Your task to perform on an android device: Search for a 1/4" hex shank drill bit on Lowe's. Image 0: 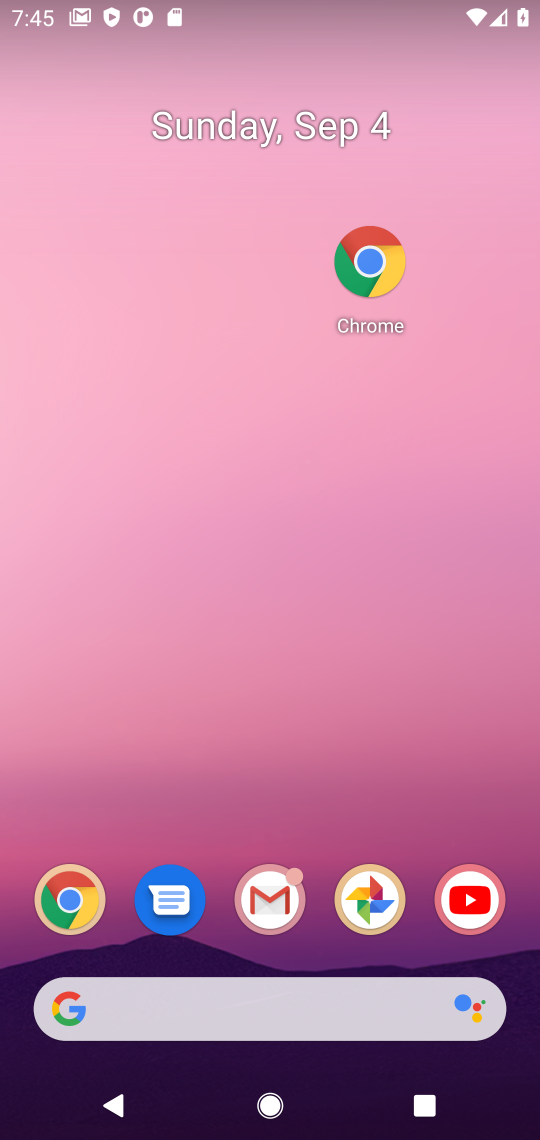
Step 0: click (385, 307)
Your task to perform on an android device: Search for a 1/4" hex shank drill bit on Lowe's. Image 1: 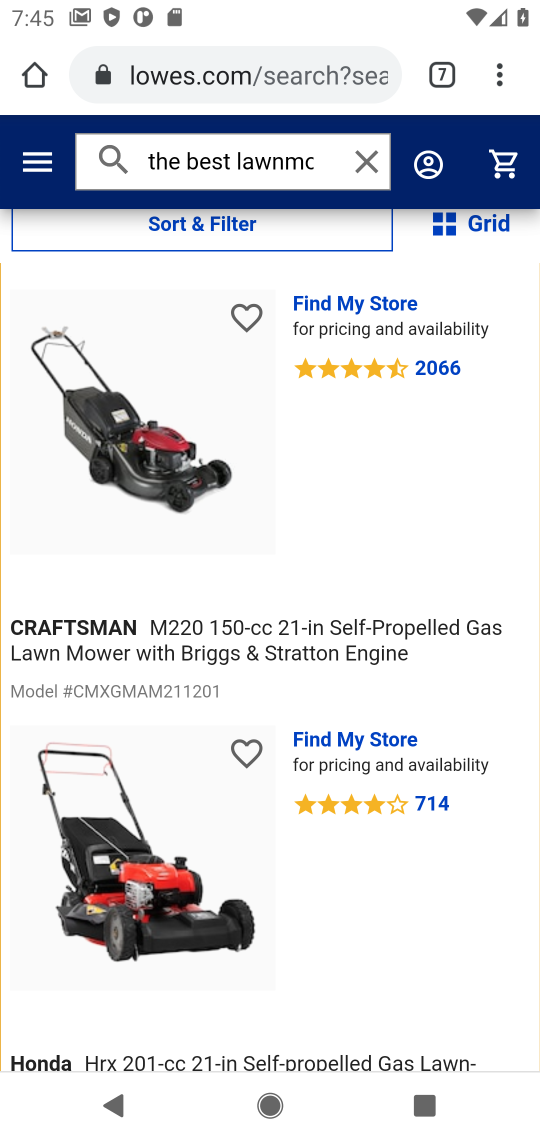
Step 1: click (362, 158)
Your task to perform on an android device: Search for a 1/4" hex shank drill bit on Lowe's. Image 2: 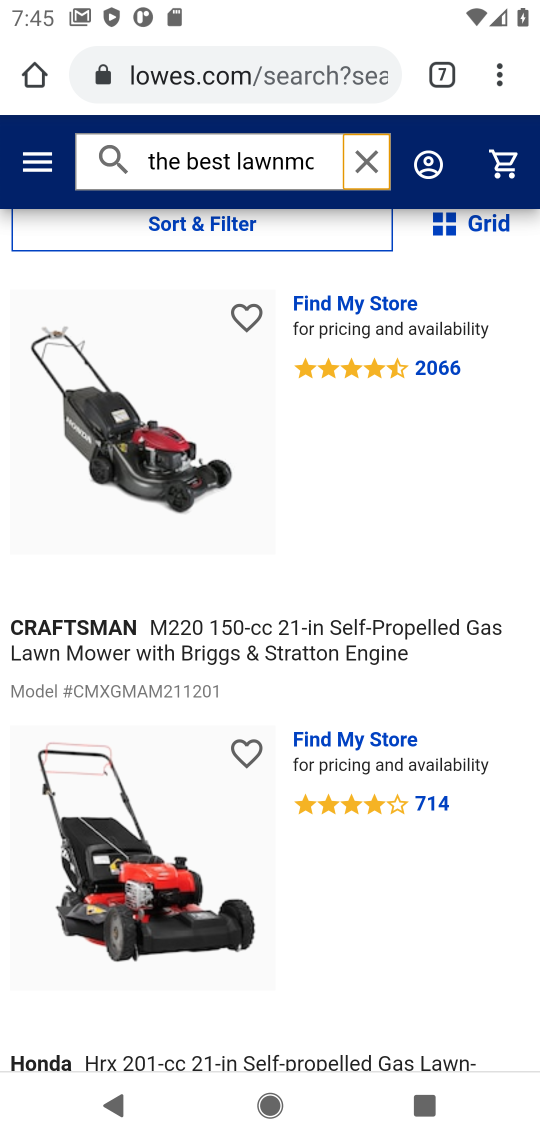
Step 2: click (362, 157)
Your task to perform on an android device: Search for a 1/4" hex shank drill bit on Lowe's. Image 3: 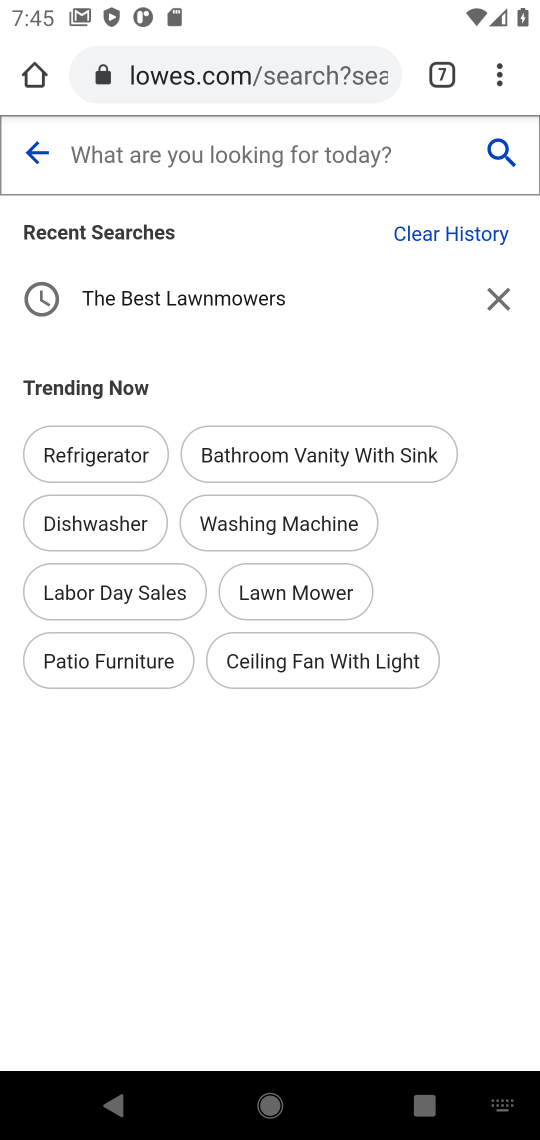
Step 3: type "a 1/4" hex shank drill bit "
Your task to perform on an android device: Search for a 1/4" hex shank drill bit on Lowe's. Image 4: 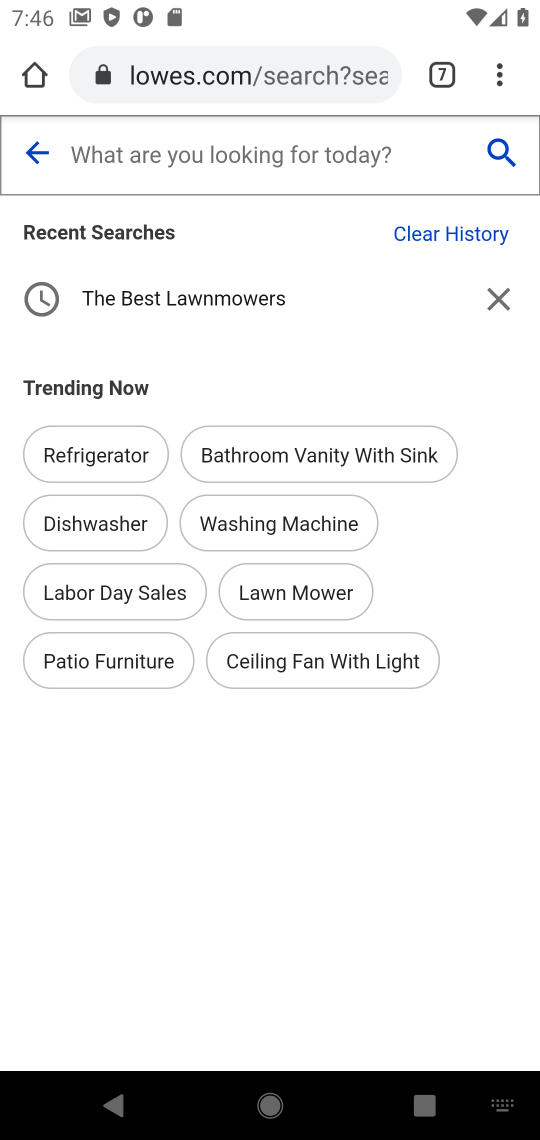
Step 4: click (97, 160)
Your task to perform on an android device: Search for a 1/4" hex shank drill bit on Lowe's. Image 5: 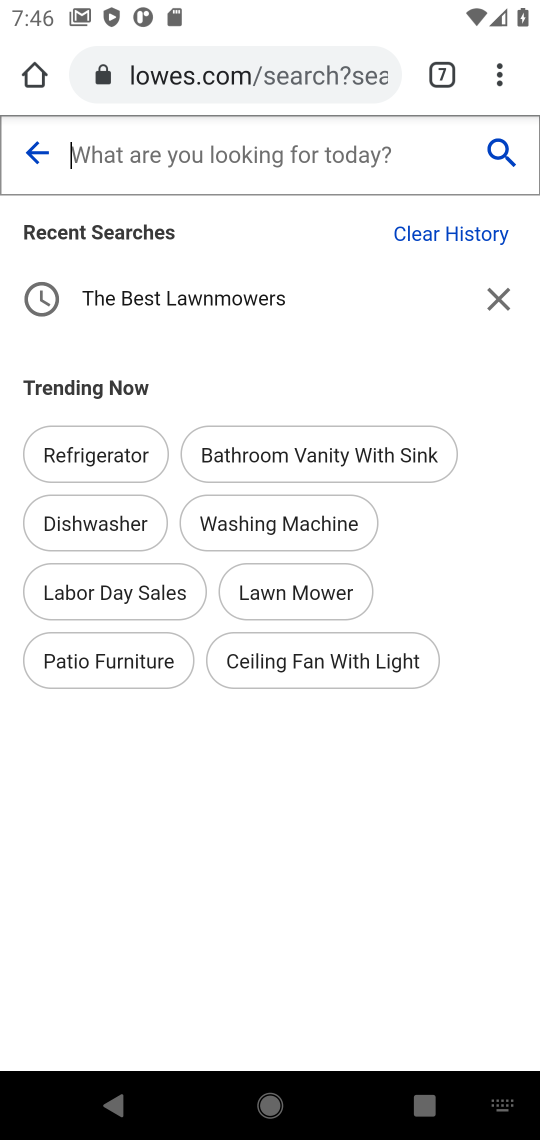
Step 5: type "1/4" hex shank drill bit "
Your task to perform on an android device: Search for a 1/4" hex shank drill bit on Lowe's. Image 6: 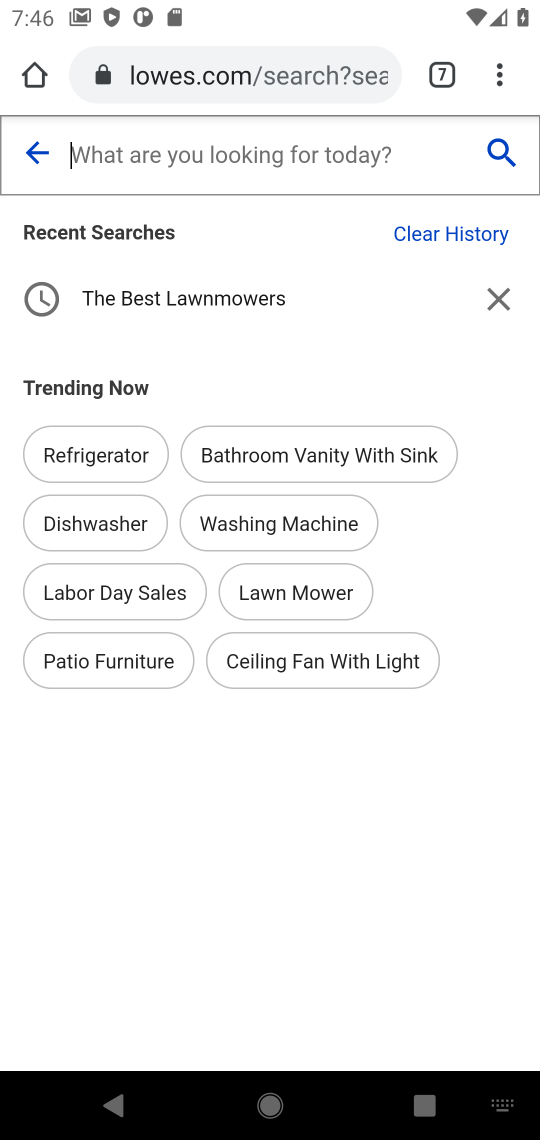
Step 6: click (503, 156)
Your task to perform on an android device: Search for a 1/4" hex shank drill bit on Lowe's. Image 7: 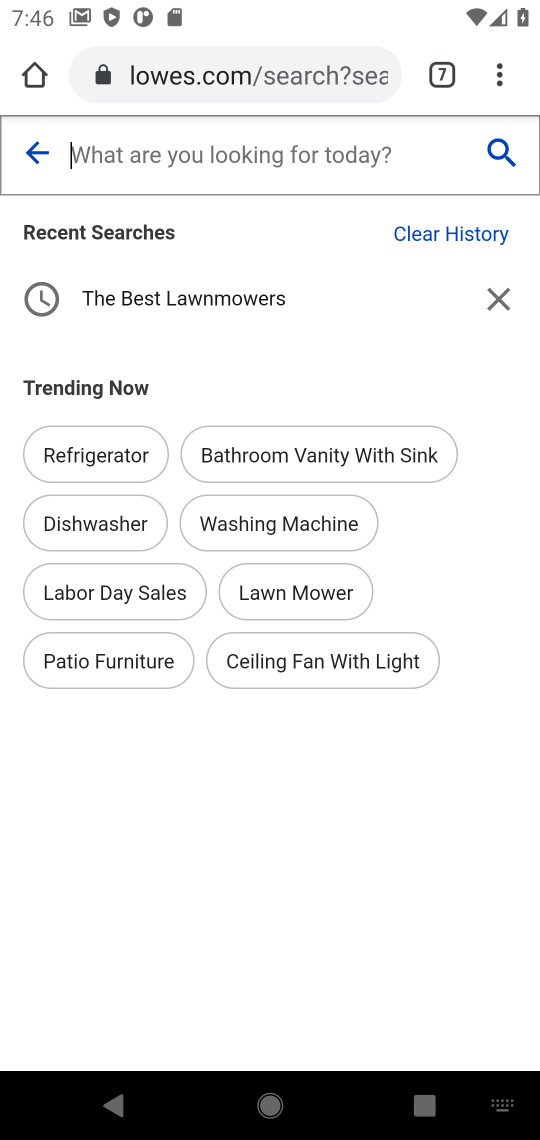
Step 7: type "shank drill"
Your task to perform on an android device: Search for a 1/4" hex shank drill bit on Lowe's. Image 8: 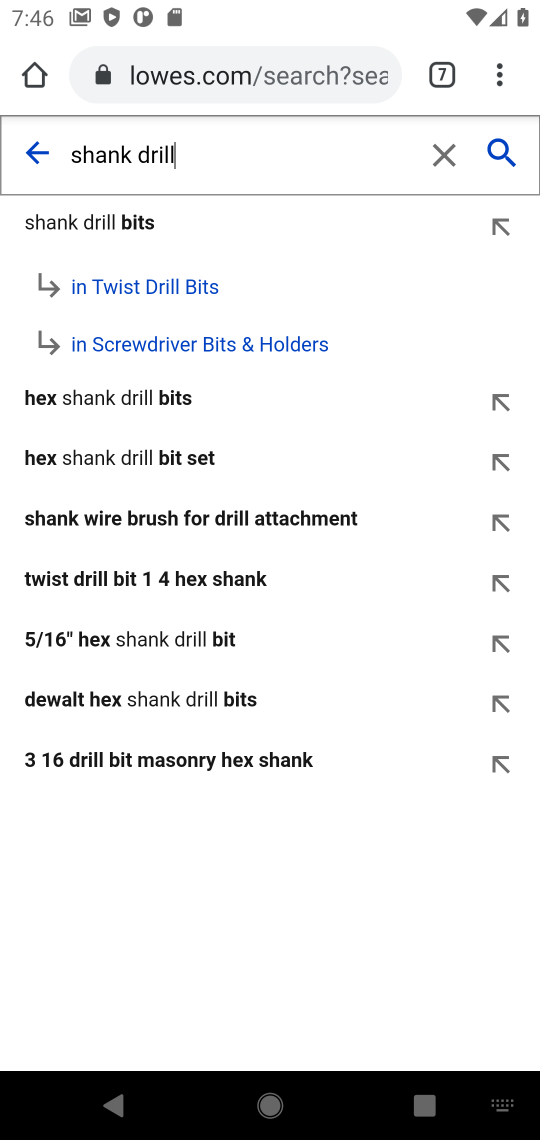
Step 8: click (194, 581)
Your task to perform on an android device: Search for a 1/4" hex shank drill bit on Lowe's. Image 9: 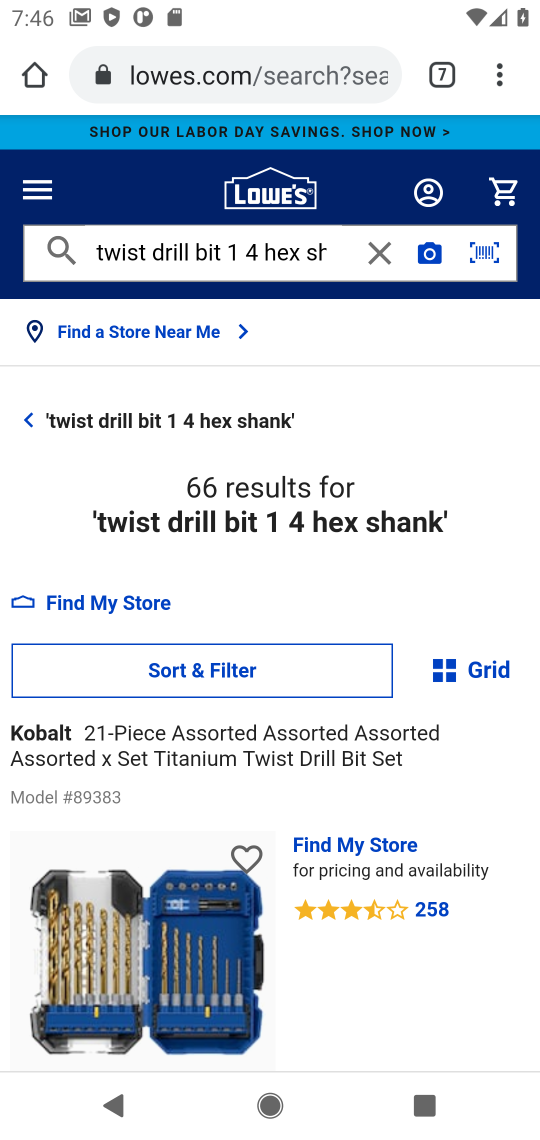
Step 9: task complete